Your task to perform on an android device: Show me popular games on the Play Store Image 0: 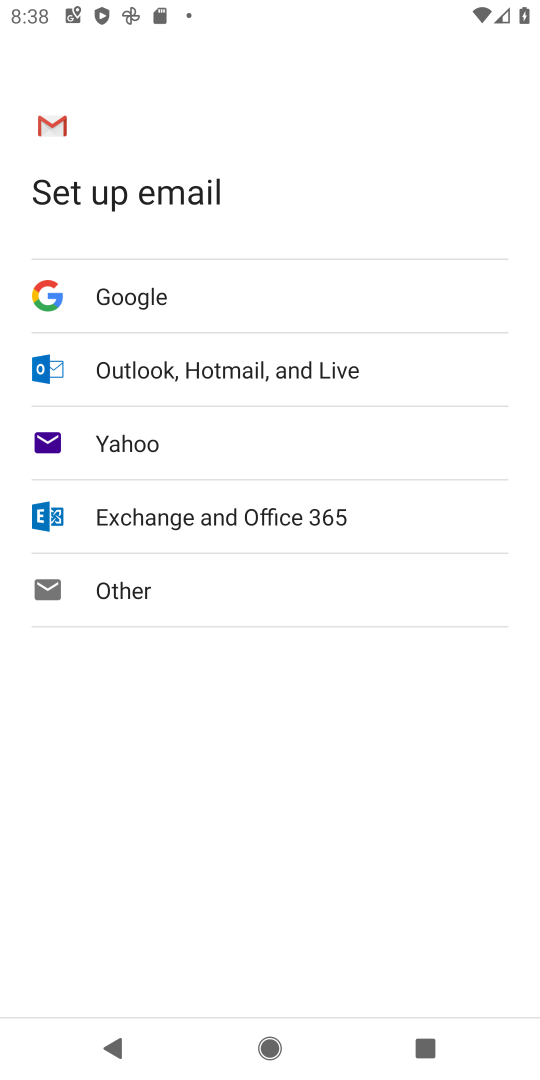
Step 0: press home button
Your task to perform on an android device: Show me popular games on the Play Store Image 1: 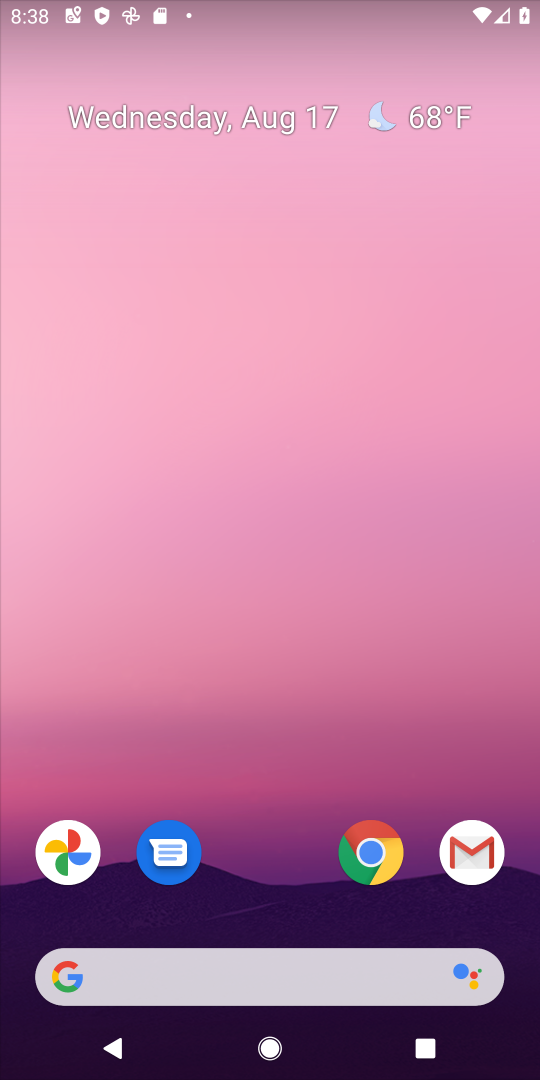
Step 1: drag from (277, 910) to (248, 131)
Your task to perform on an android device: Show me popular games on the Play Store Image 2: 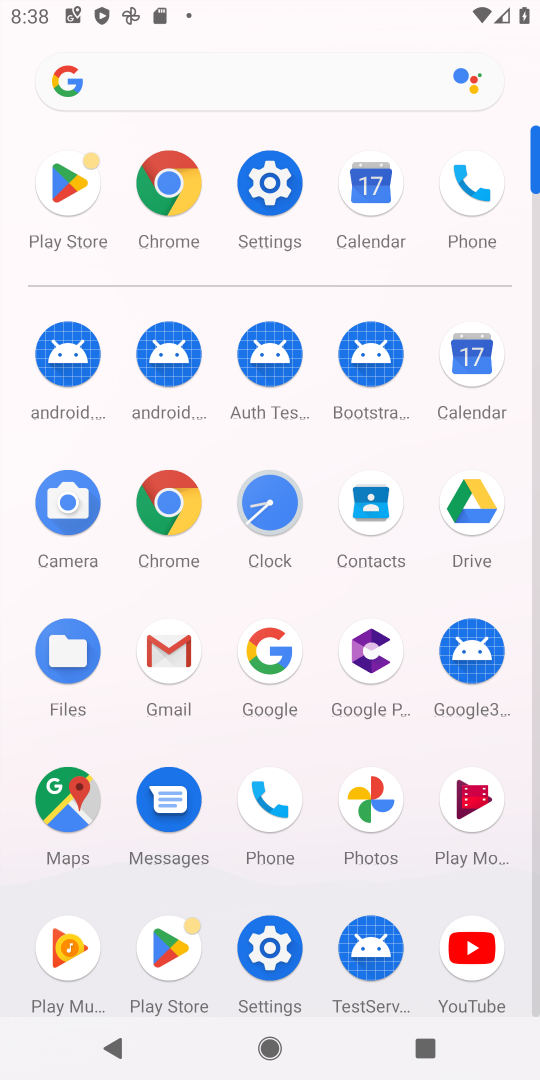
Step 2: click (172, 945)
Your task to perform on an android device: Show me popular games on the Play Store Image 3: 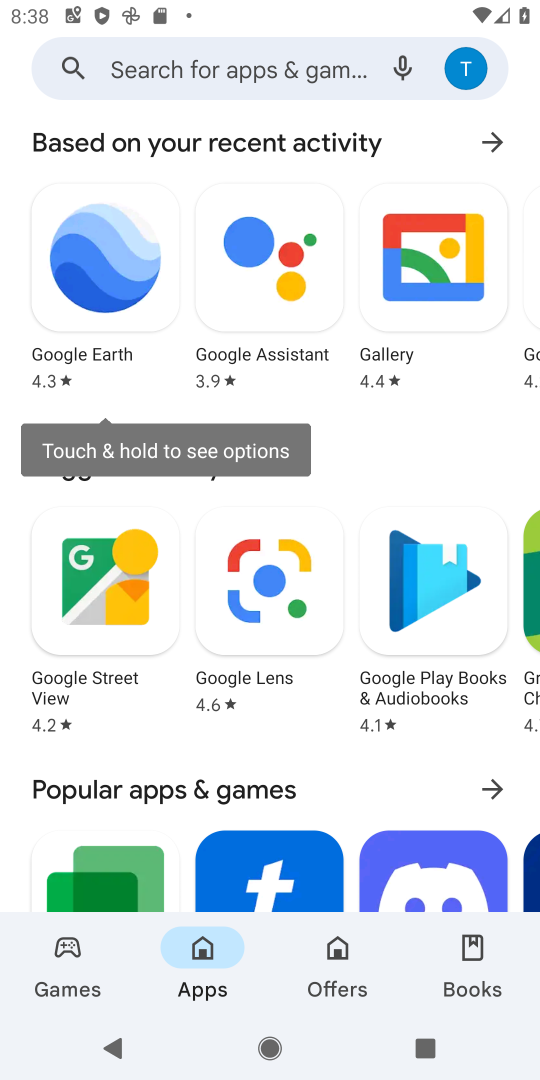
Step 3: click (67, 962)
Your task to perform on an android device: Show me popular games on the Play Store Image 4: 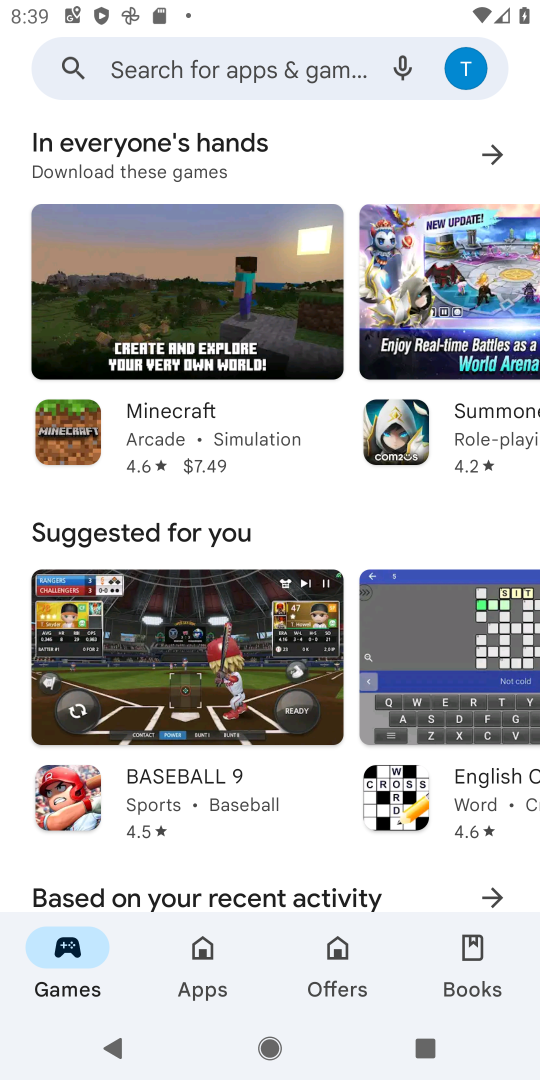
Step 4: task complete